Your task to perform on an android device: Search for "macbook pro 13 inch" on newegg.com, select the first entry, and add it to the cart. Image 0: 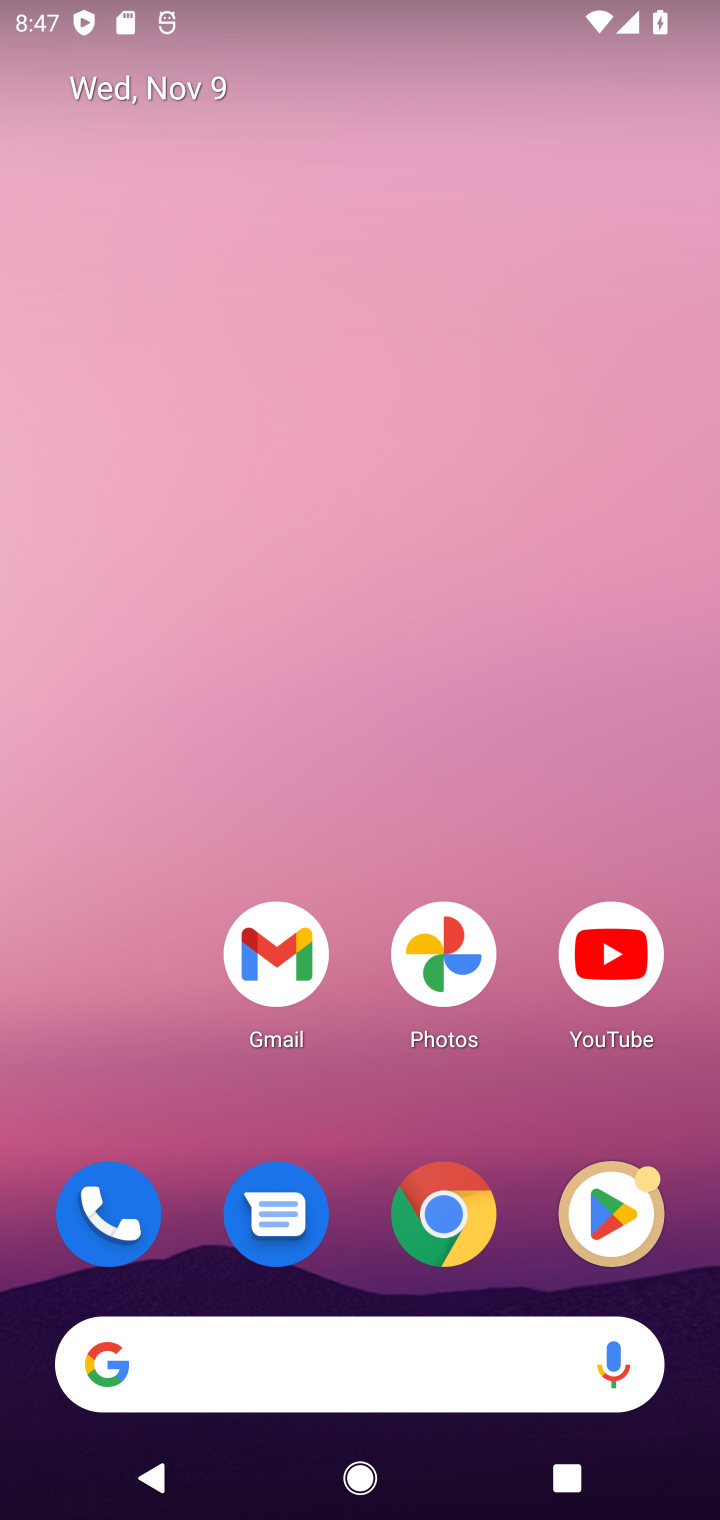
Step 0: drag from (359, 1125) to (341, 26)
Your task to perform on an android device: Search for "macbook pro 13 inch" on newegg.com, select the first entry, and add it to the cart. Image 1: 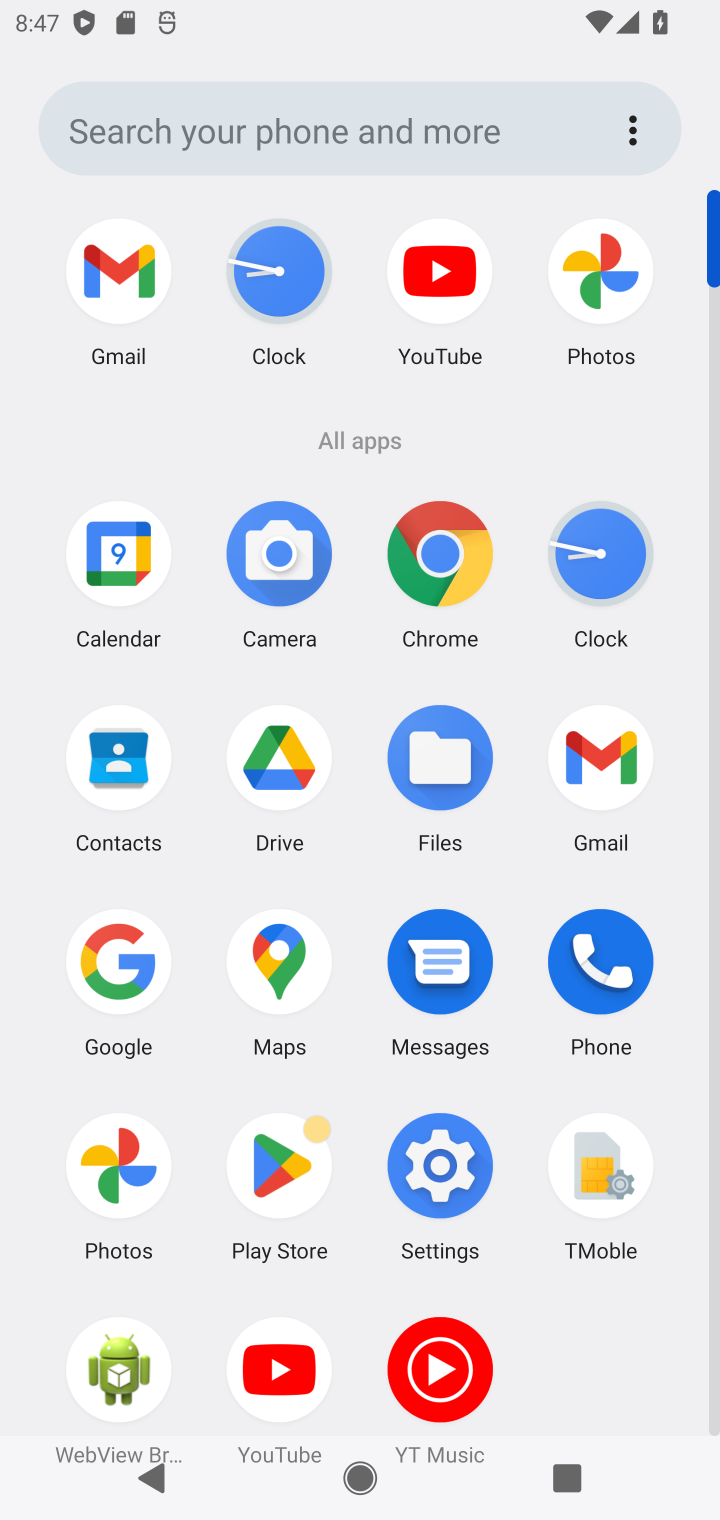
Step 1: click (450, 562)
Your task to perform on an android device: Search for "macbook pro 13 inch" on newegg.com, select the first entry, and add it to the cart. Image 2: 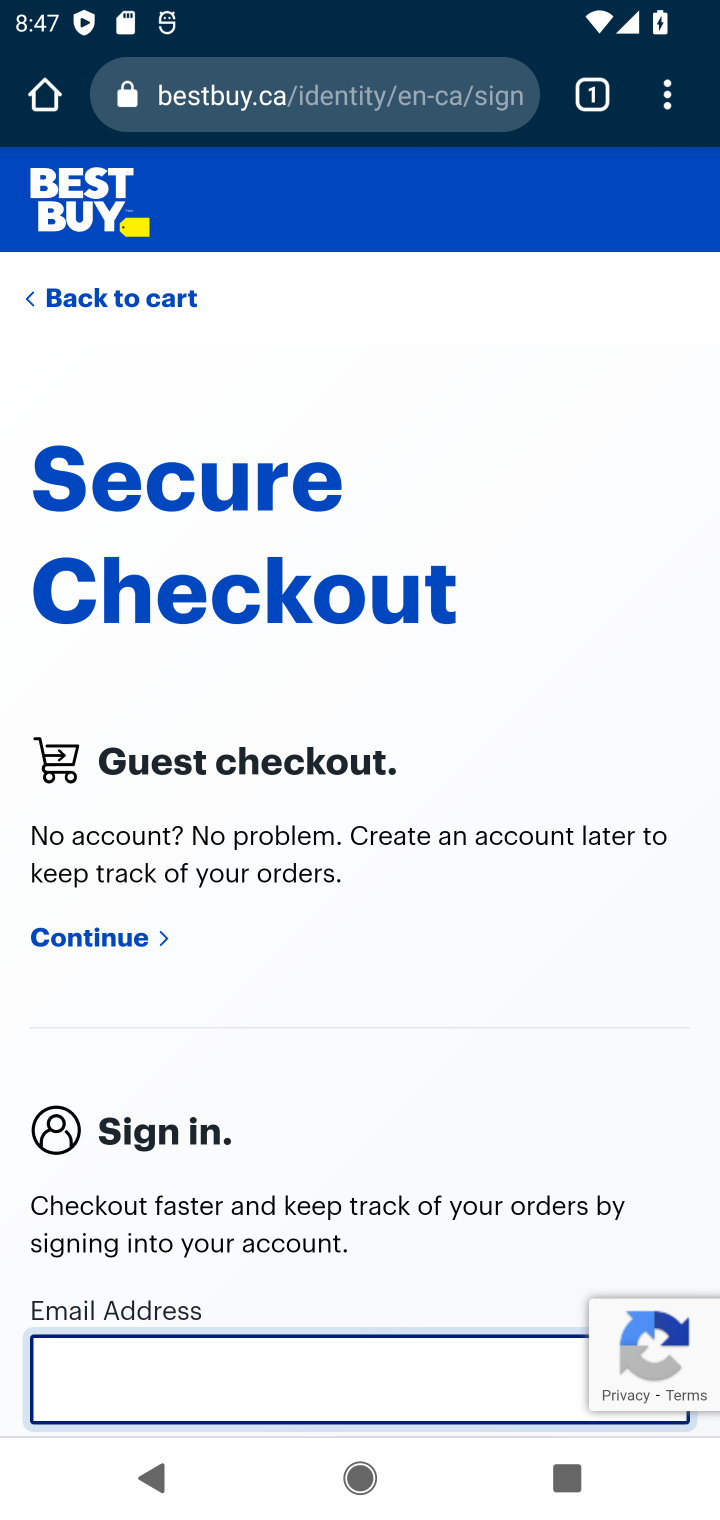
Step 2: click (301, 80)
Your task to perform on an android device: Search for "macbook pro 13 inch" on newegg.com, select the first entry, and add it to the cart. Image 3: 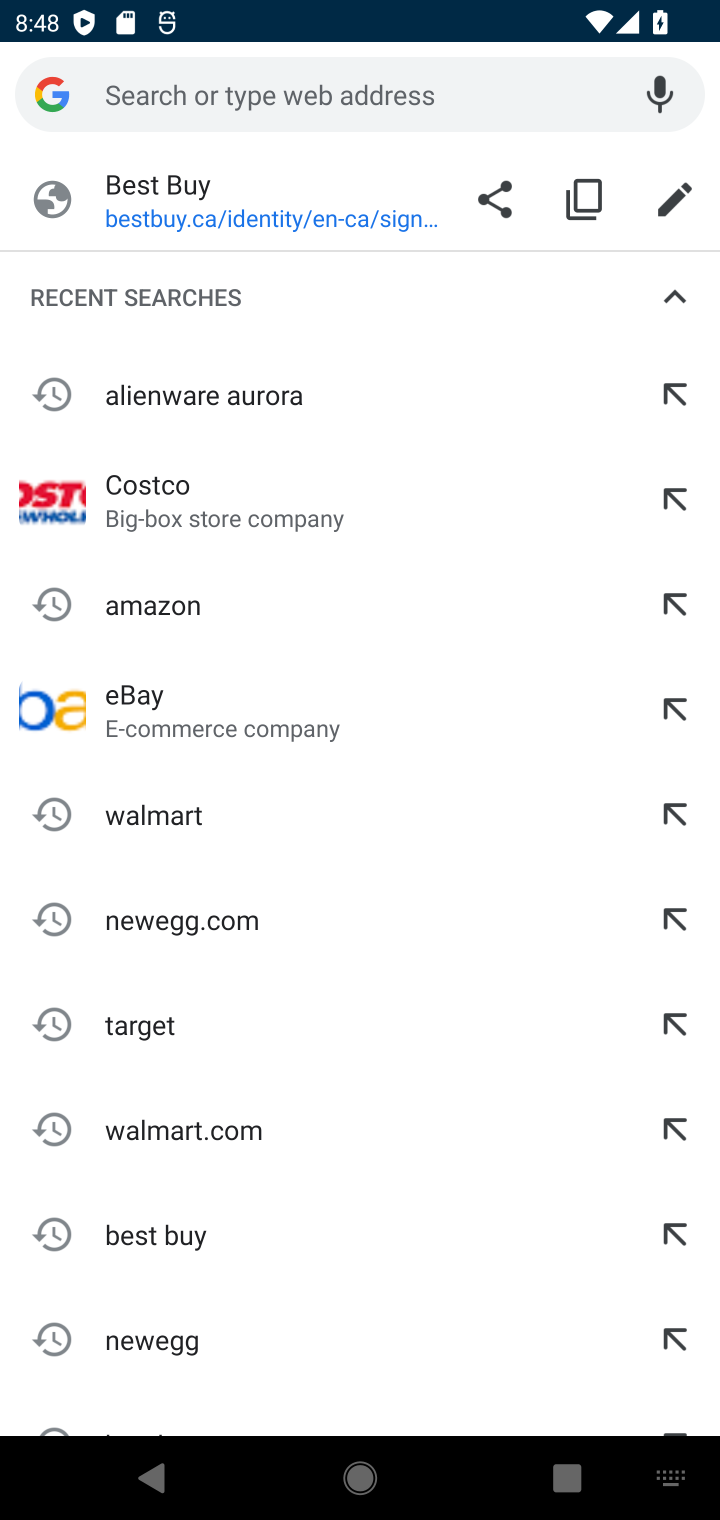
Step 3: type "newegg.com"
Your task to perform on an android device: Search for "macbook pro 13 inch" on newegg.com, select the first entry, and add it to the cart. Image 4: 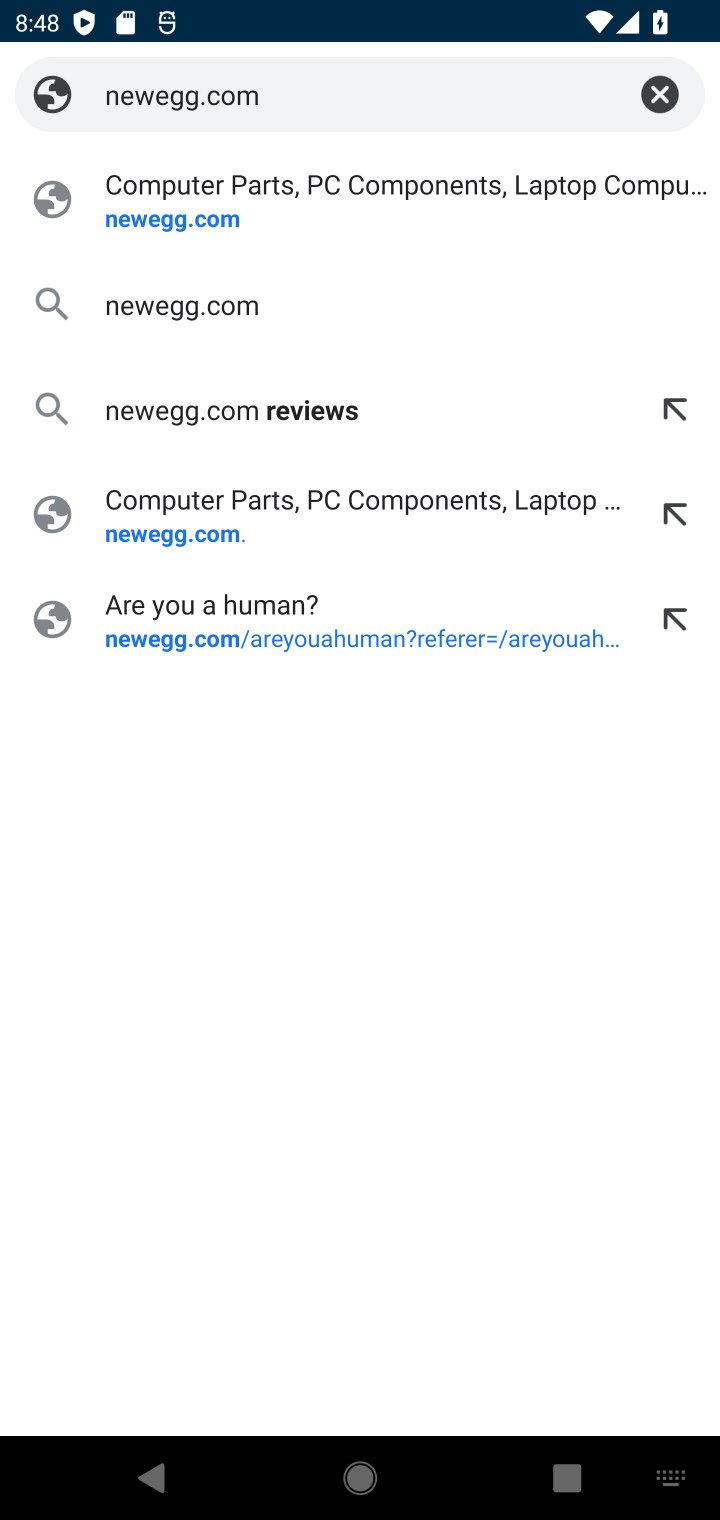
Step 4: press enter
Your task to perform on an android device: Search for "macbook pro 13 inch" on newegg.com, select the first entry, and add it to the cart. Image 5: 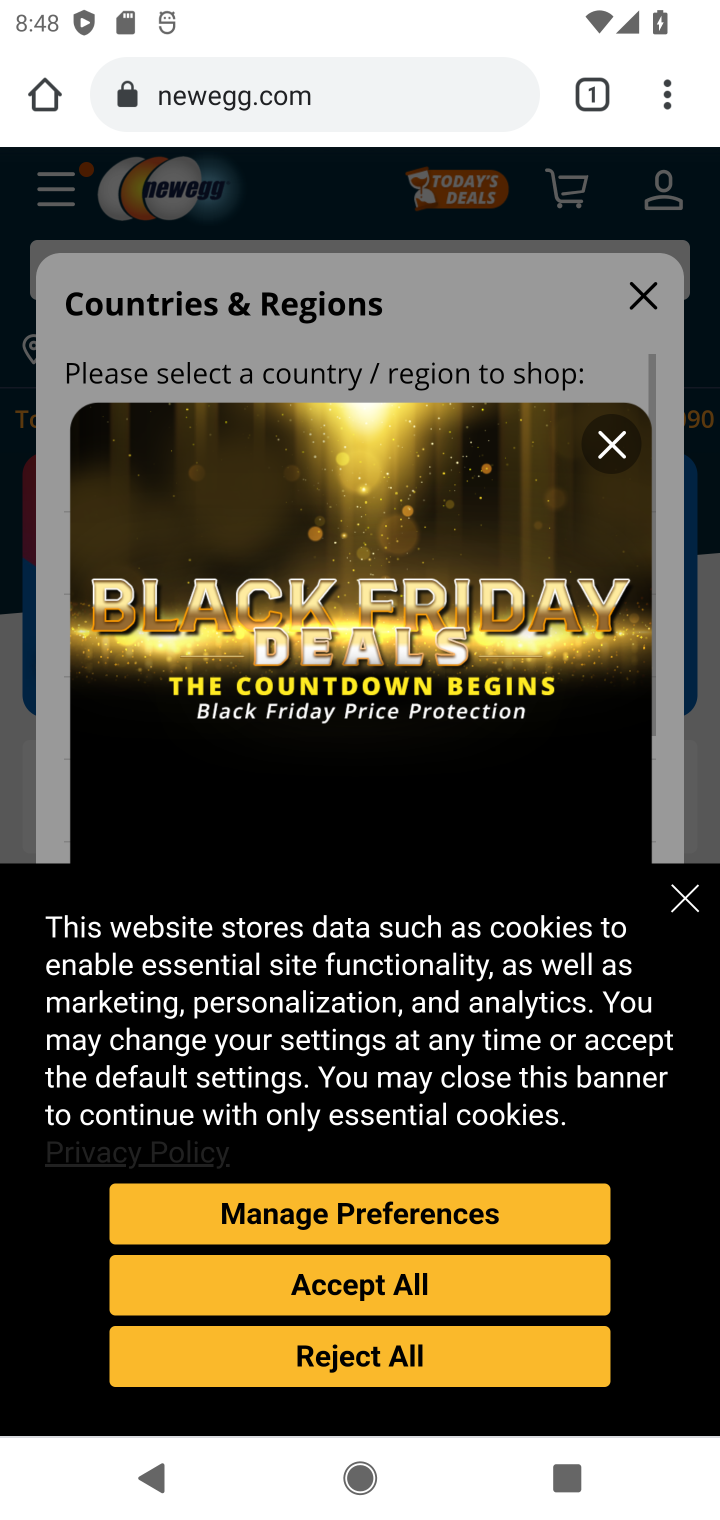
Step 5: click (655, 290)
Your task to perform on an android device: Search for "macbook pro 13 inch" on newegg.com, select the first entry, and add it to the cart. Image 6: 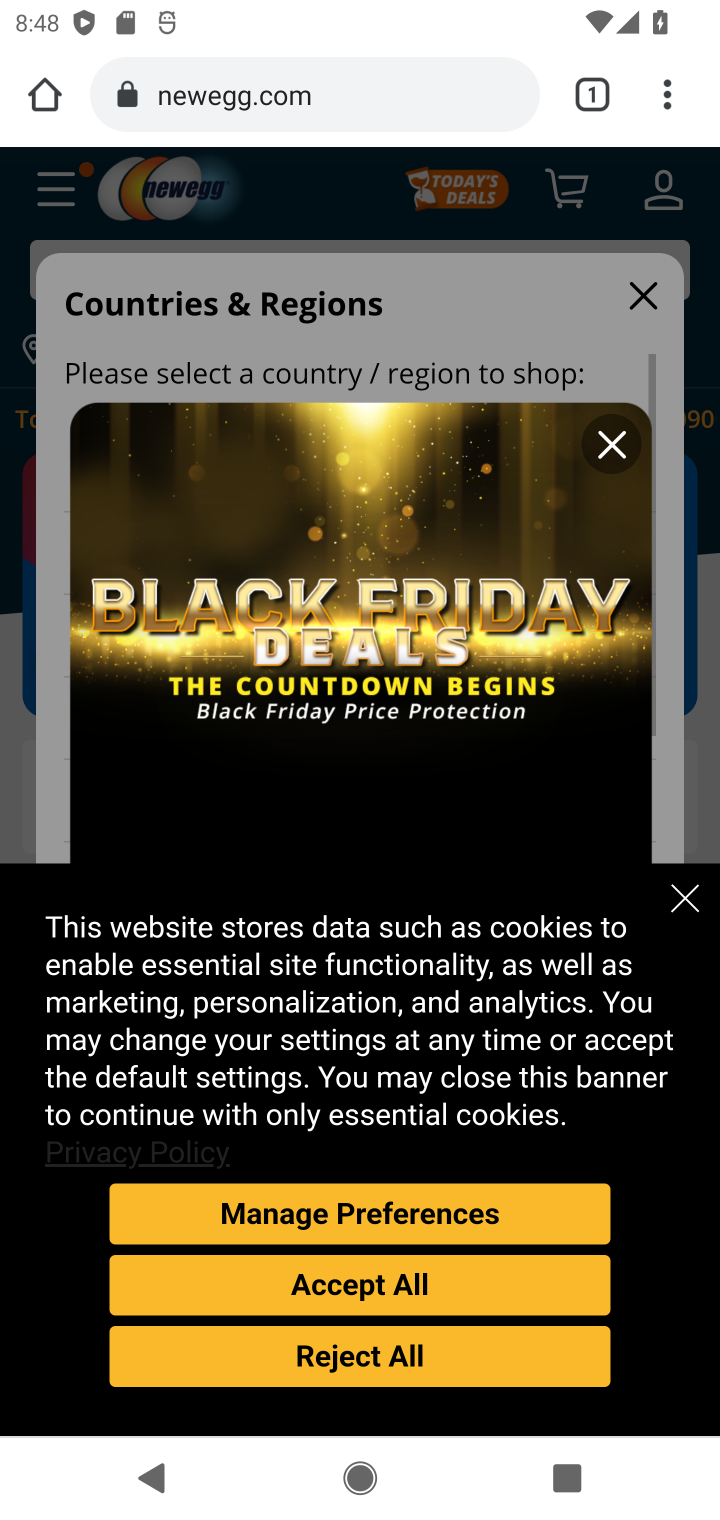
Step 6: click (655, 290)
Your task to perform on an android device: Search for "macbook pro 13 inch" on newegg.com, select the first entry, and add it to the cart. Image 7: 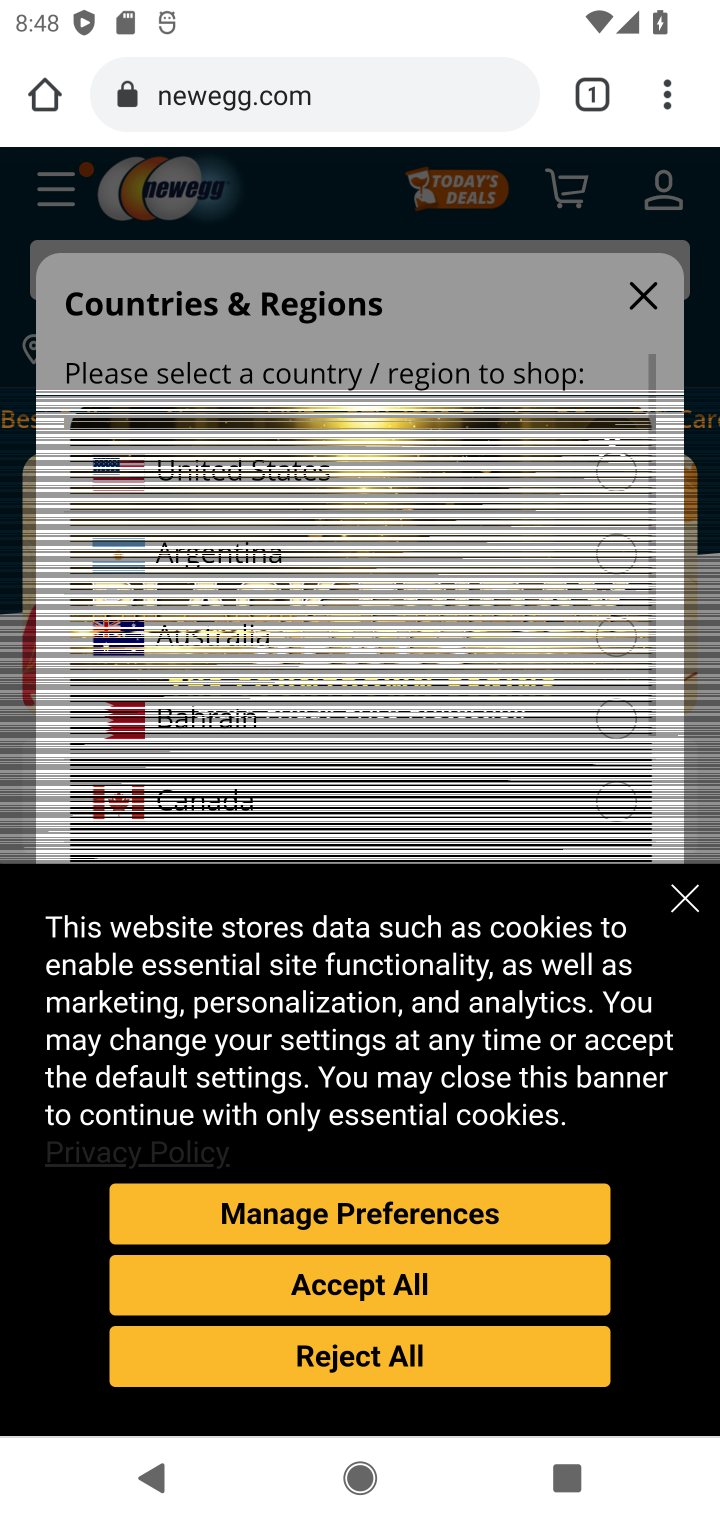
Step 7: click (613, 455)
Your task to perform on an android device: Search for "macbook pro 13 inch" on newegg.com, select the first entry, and add it to the cart. Image 8: 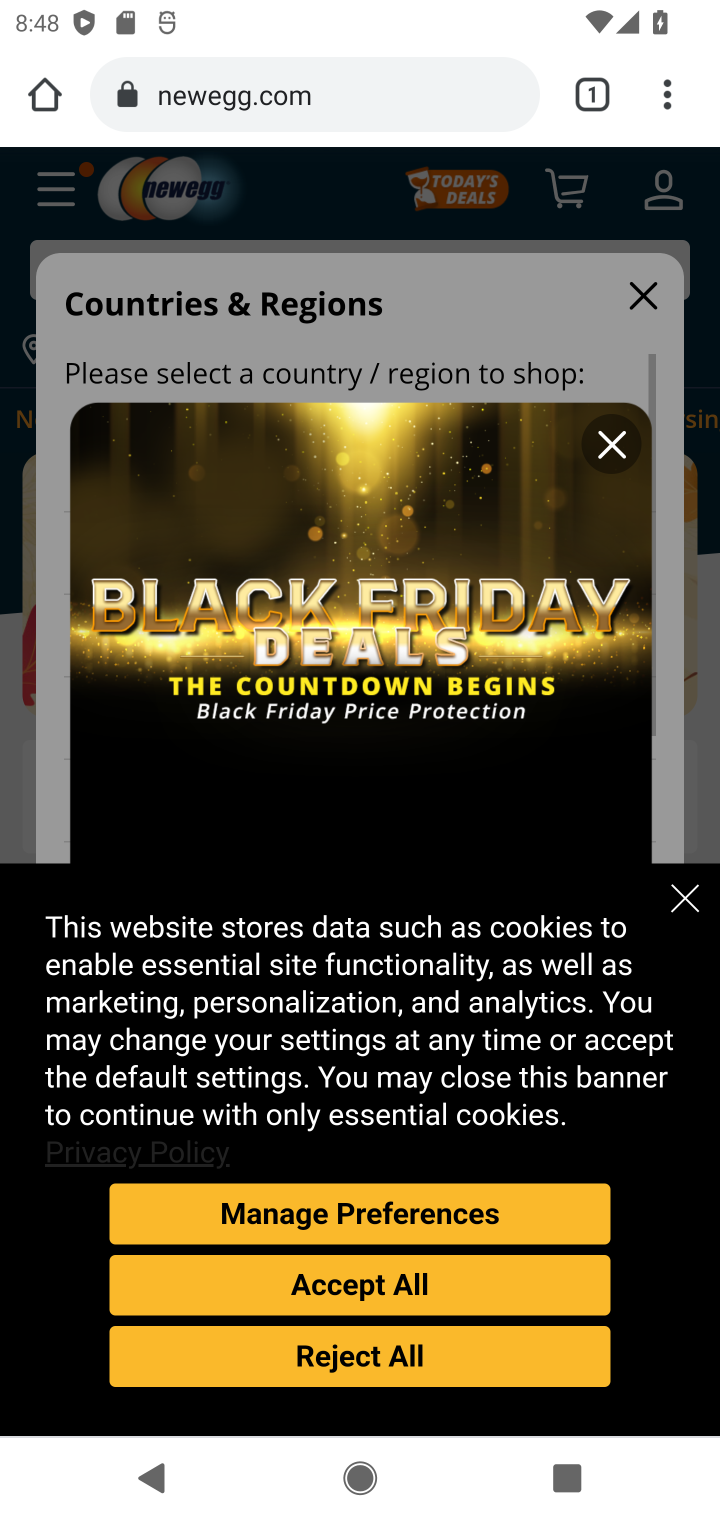
Step 8: click (640, 312)
Your task to perform on an android device: Search for "macbook pro 13 inch" on newegg.com, select the first entry, and add it to the cart. Image 9: 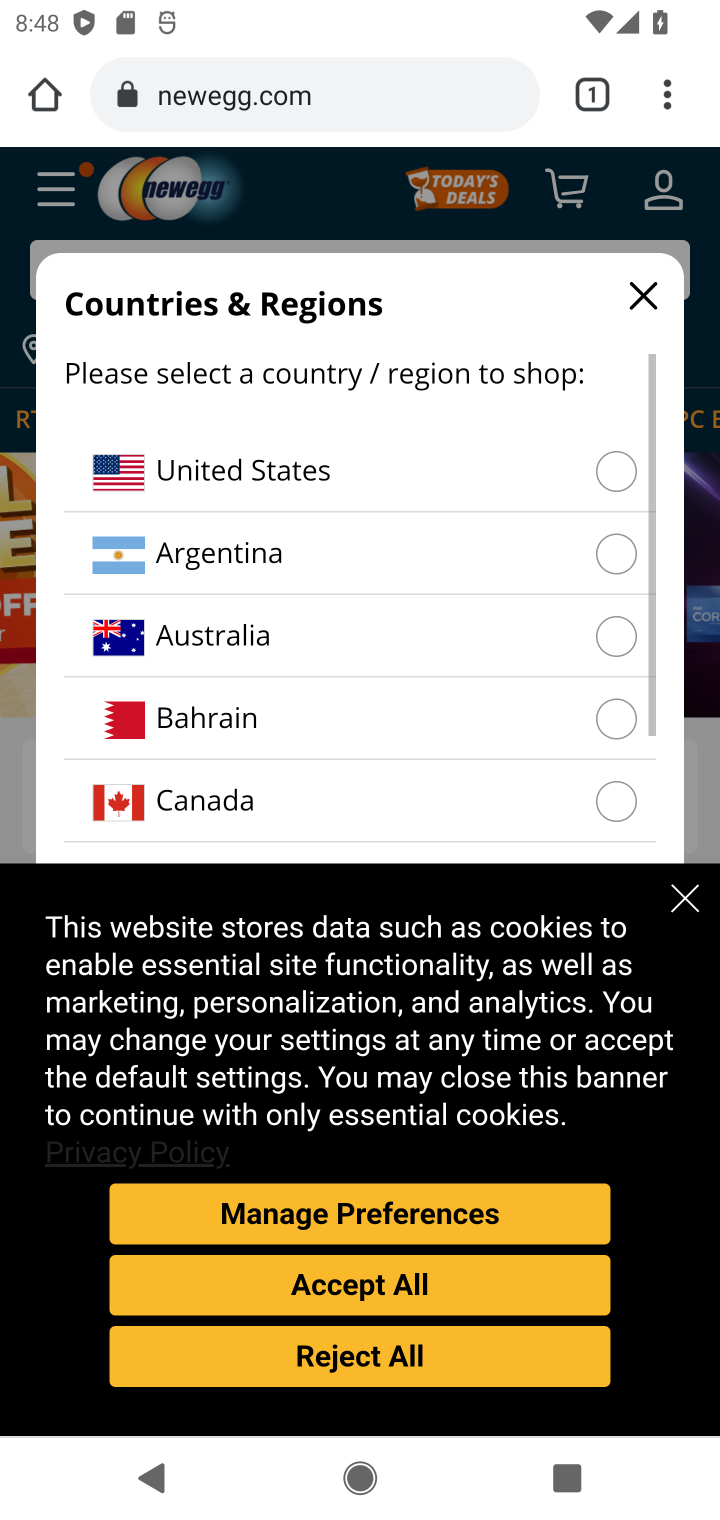
Step 9: click (647, 289)
Your task to perform on an android device: Search for "macbook pro 13 inch" on newegg.com, select the first entry, and add it to the cart. Image 10: 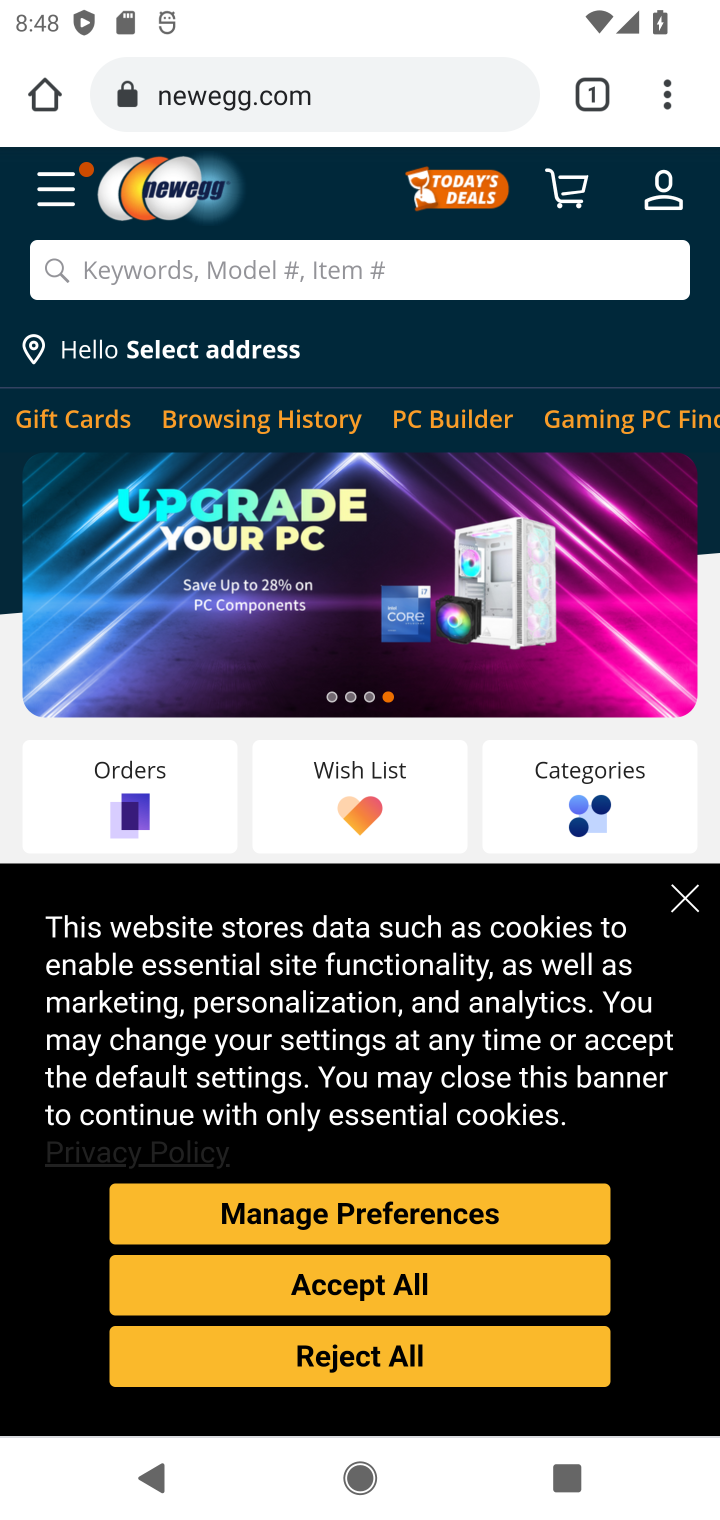
Step 10: click (532, 269)
Your task to perform on an android device: Search for "macbook pro 13 inch" on newegg.com, select the first entry, and add it to the cart. Image 11: 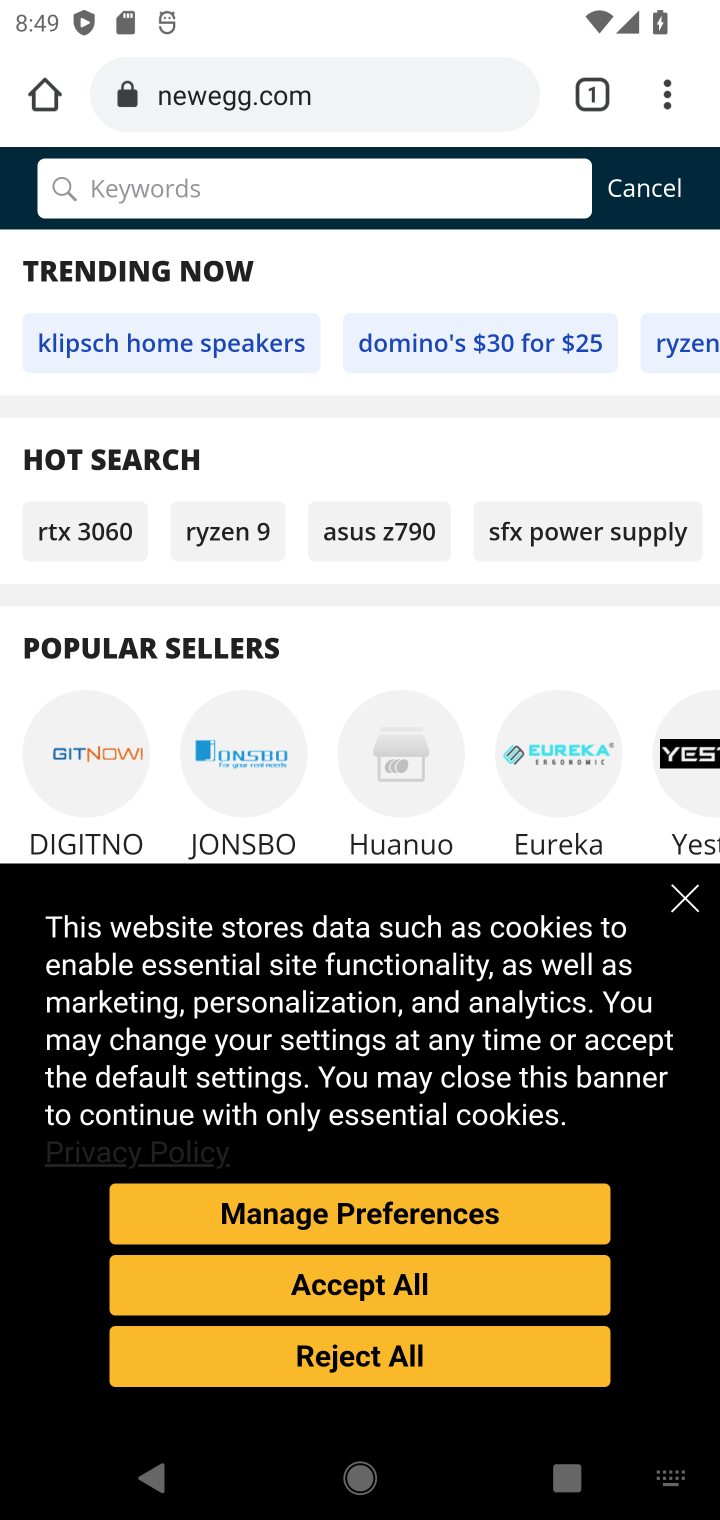
Step 11: type "macbook pro 13 inch"
Your task to perform on an android device: Search for "macbook pro 13 inch" on newegg.com, select the first entry, and add it to the cart. Image 12: 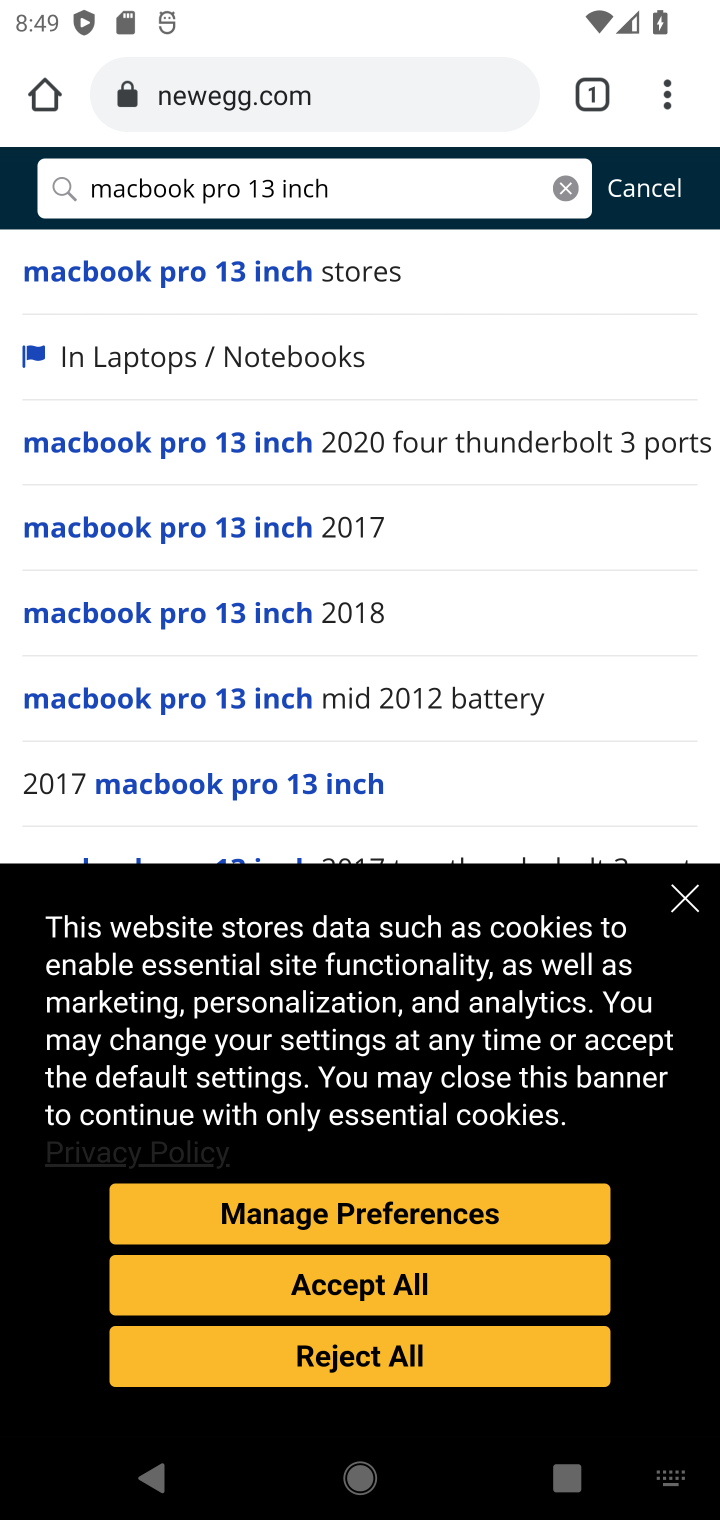
Step 12: press enter
Your task to perform on an android device: Search for "macbook pro 13 inch" on newegg.com, select the first entry, and add it to the cart. Image 13: 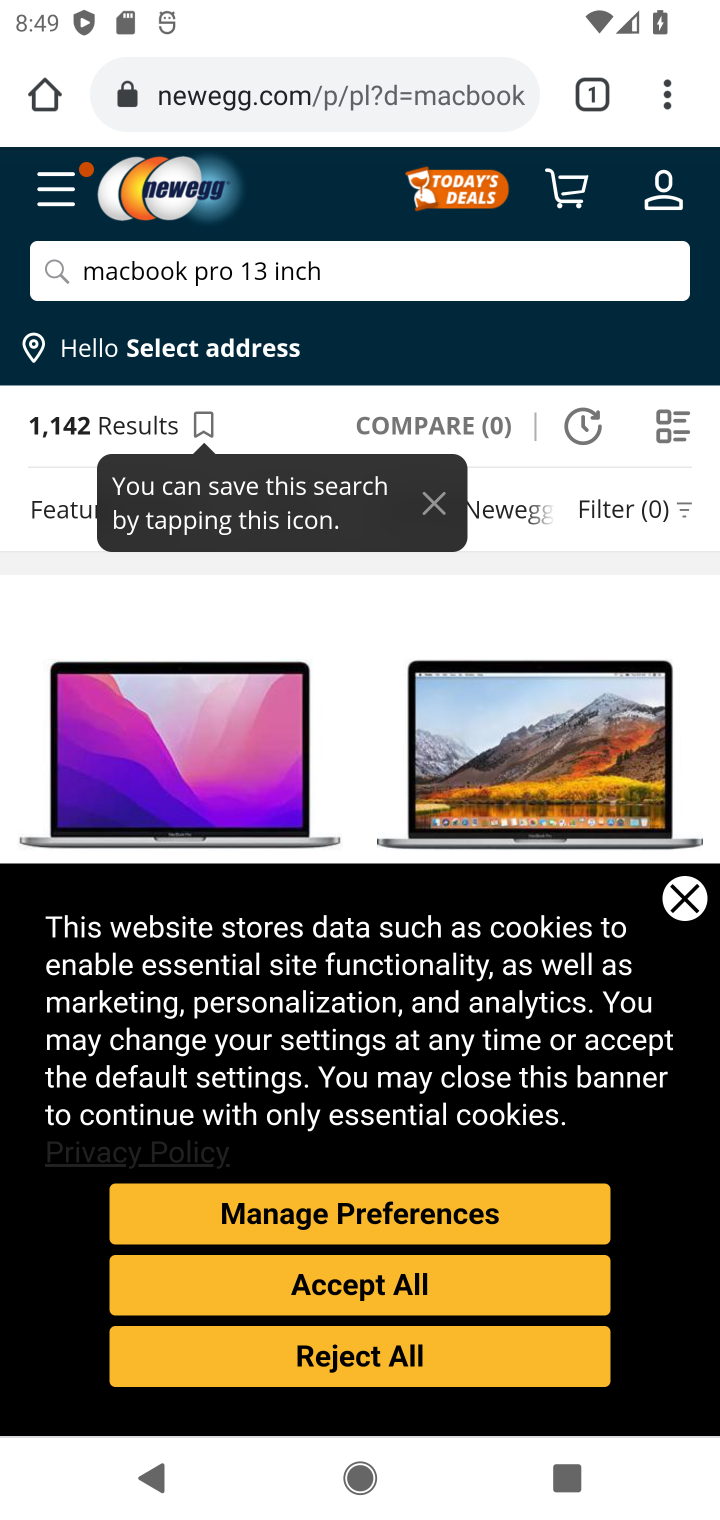
Step 13: click (397, 1296)
Your task to perform on an android device: Search for "macbook pro 13 inch" on newegg.com, select the first entry, and add it to the cart. Image 14: 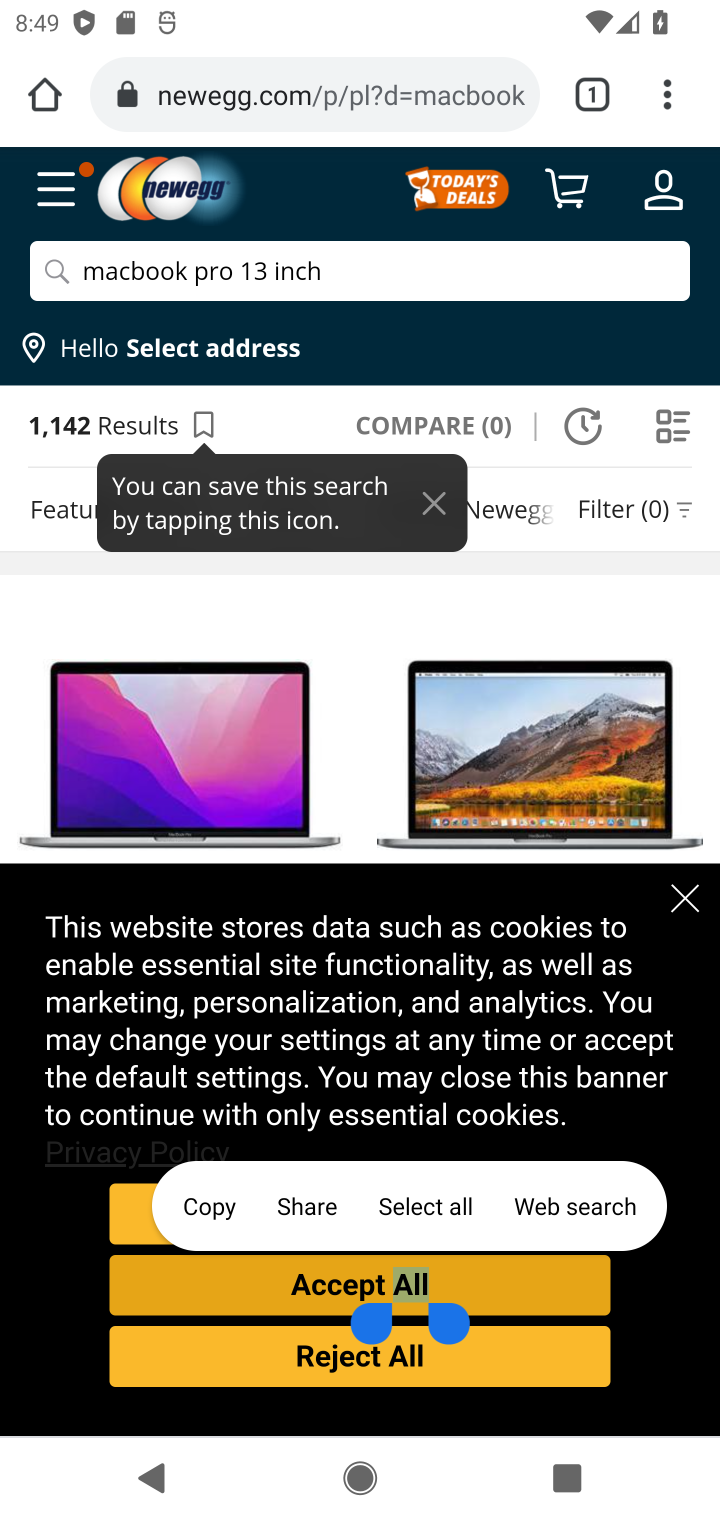
Step 14: click (349, 1311)
Your task to perform on an android device: Search for "macbook pro 13 inch" on newegg.com, select the first entry, and add it to the cart. Image 15: 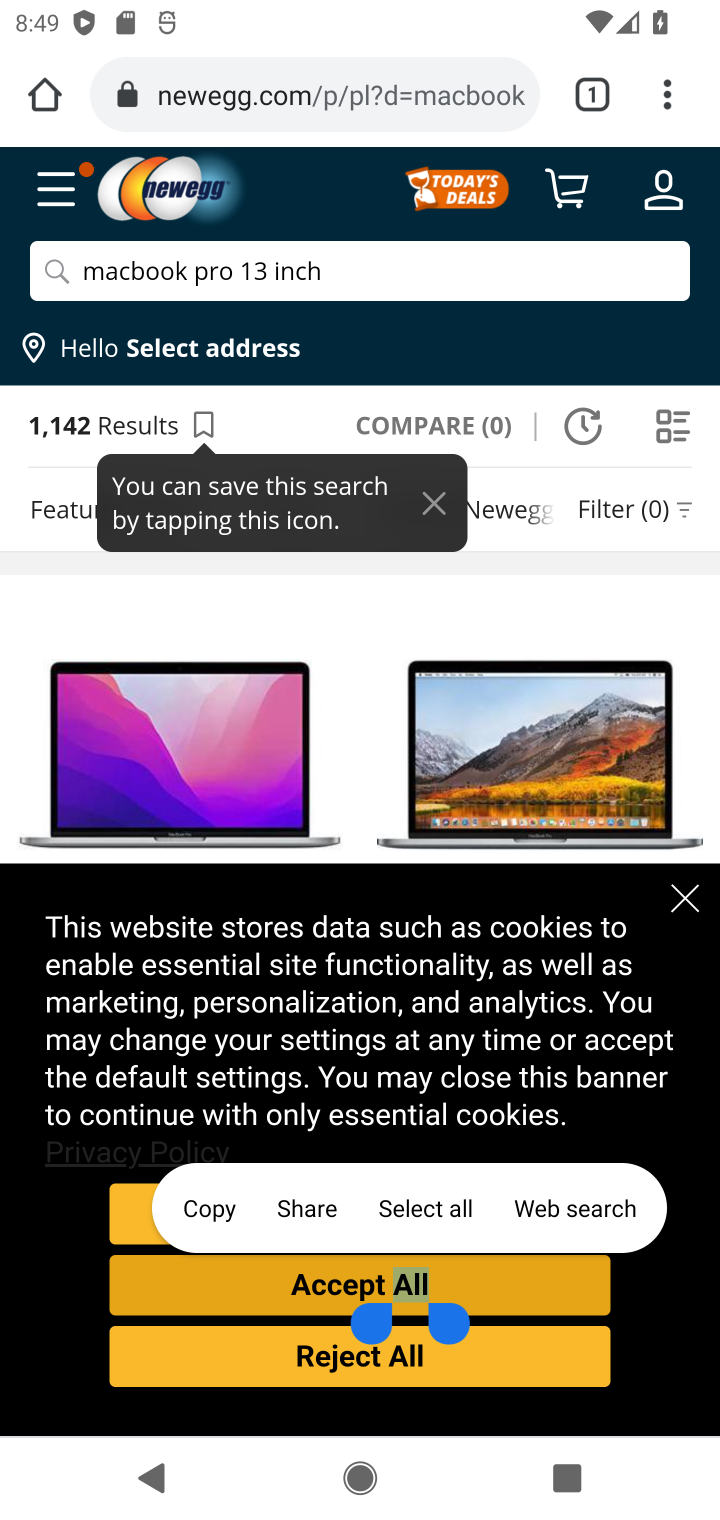
Step 15: click (359, 1290)
Your task to perform on an android device: Search for "macbook pro 13 inch" on newegg.com, select the first entry, and add it to the cart. Image 16: 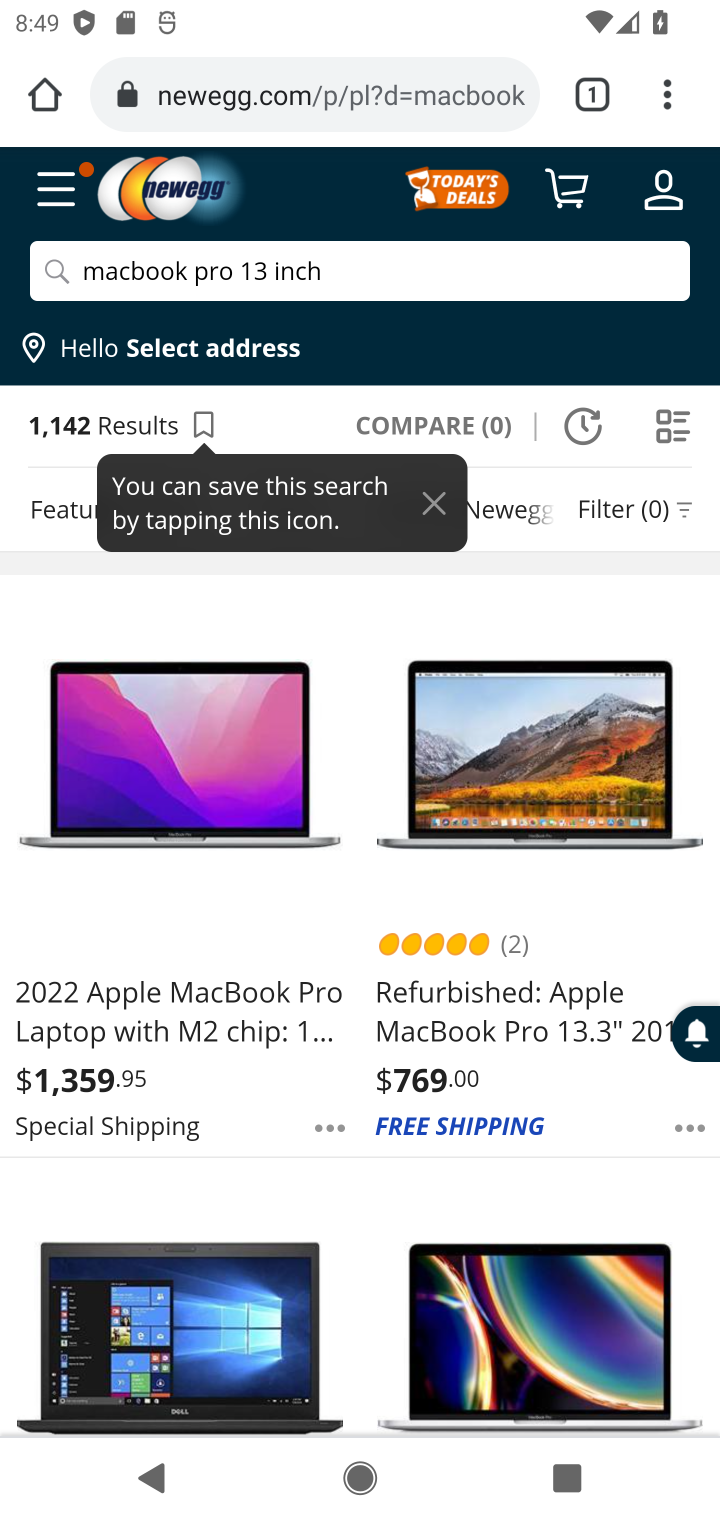
Step 16: drag from (286, 1262) to (292, 936)
Your task to perform on an android device: Search for "macbook pro 13 inch" on newegg.com, select the first entry, and add it to the cart. Image 17: 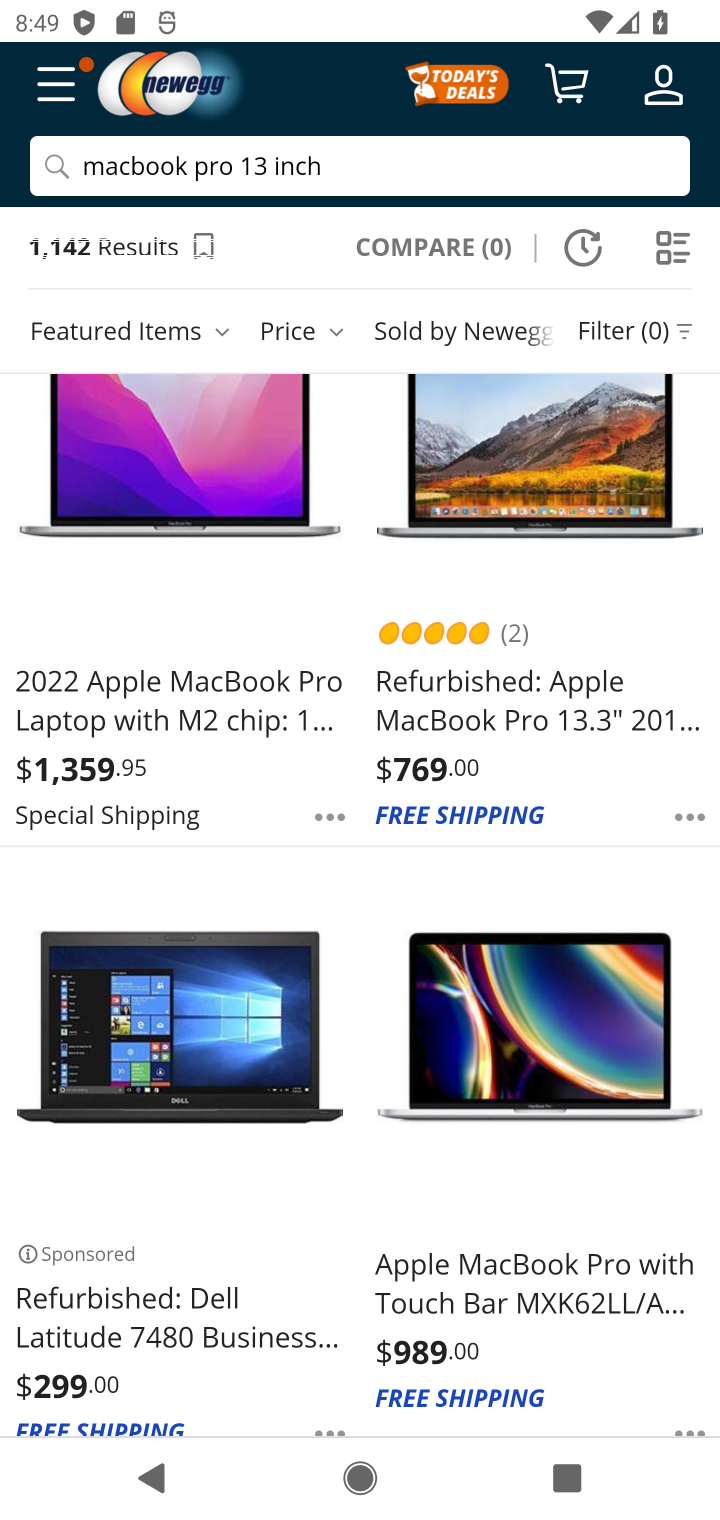
Step 17: drag from (260, 780) to (366, 1162)
Your task to perform on an android device: Search for "macbook pro 13 inch" on newegg.com, select the first entry, and add it to the cart. Image 18: 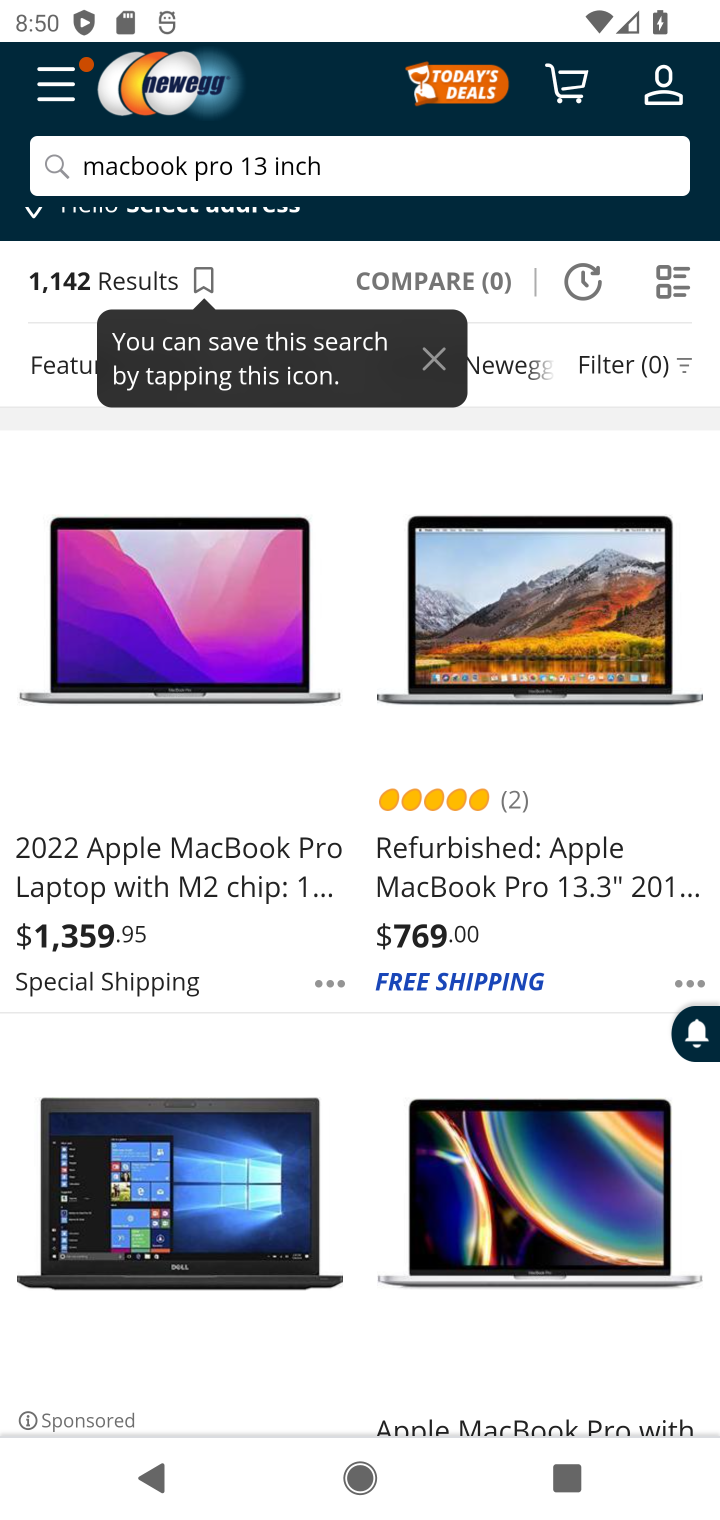
Step 18: click (239, 887)
Your task to perform on an android device: Search for "macbook pro 13 inch" on newegg.com, select the first entry, and add it to the cart. Image 19: 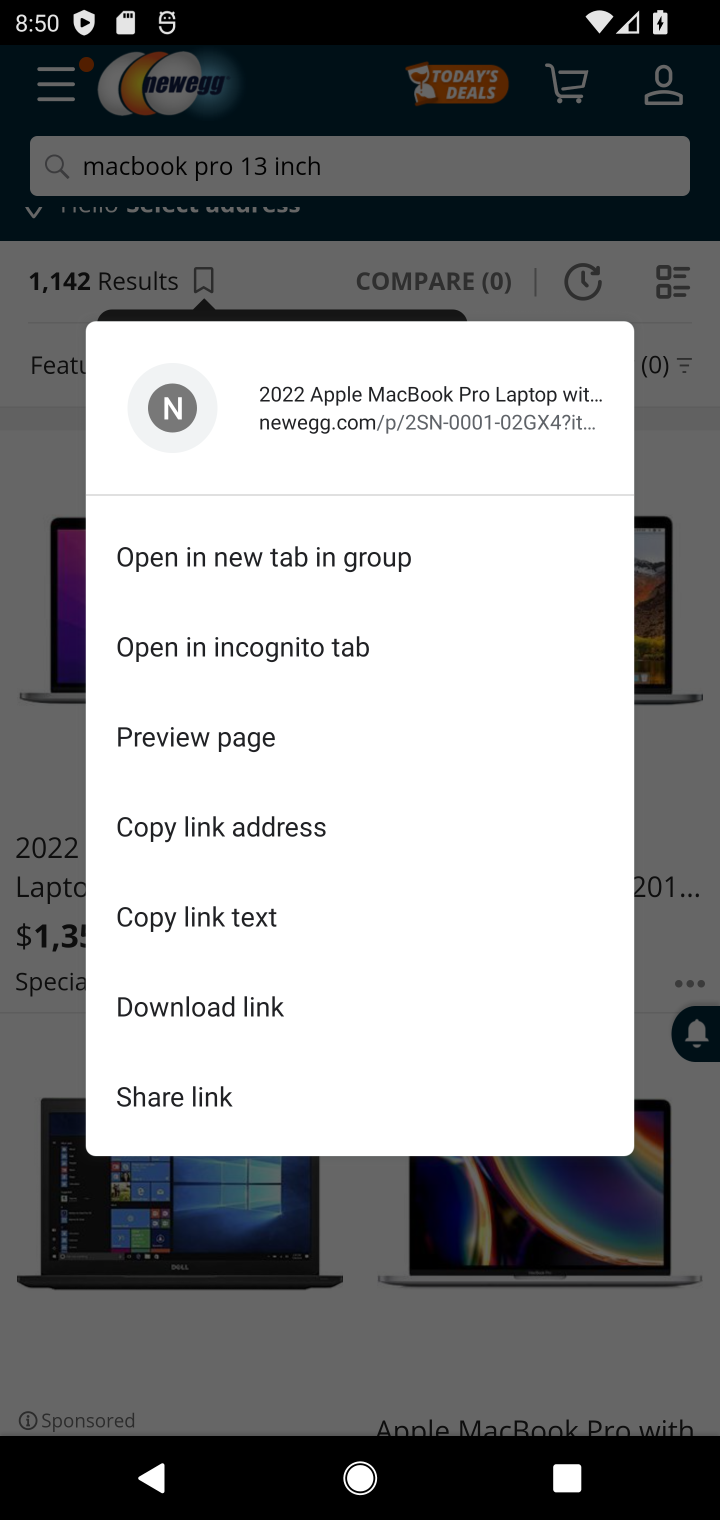
Step 19: click (31, 861)
Your task to perform on an android device: Search for "macbook pro 13 inch" on newegg.com, select the first entry, and add it to the cart. Image 20: 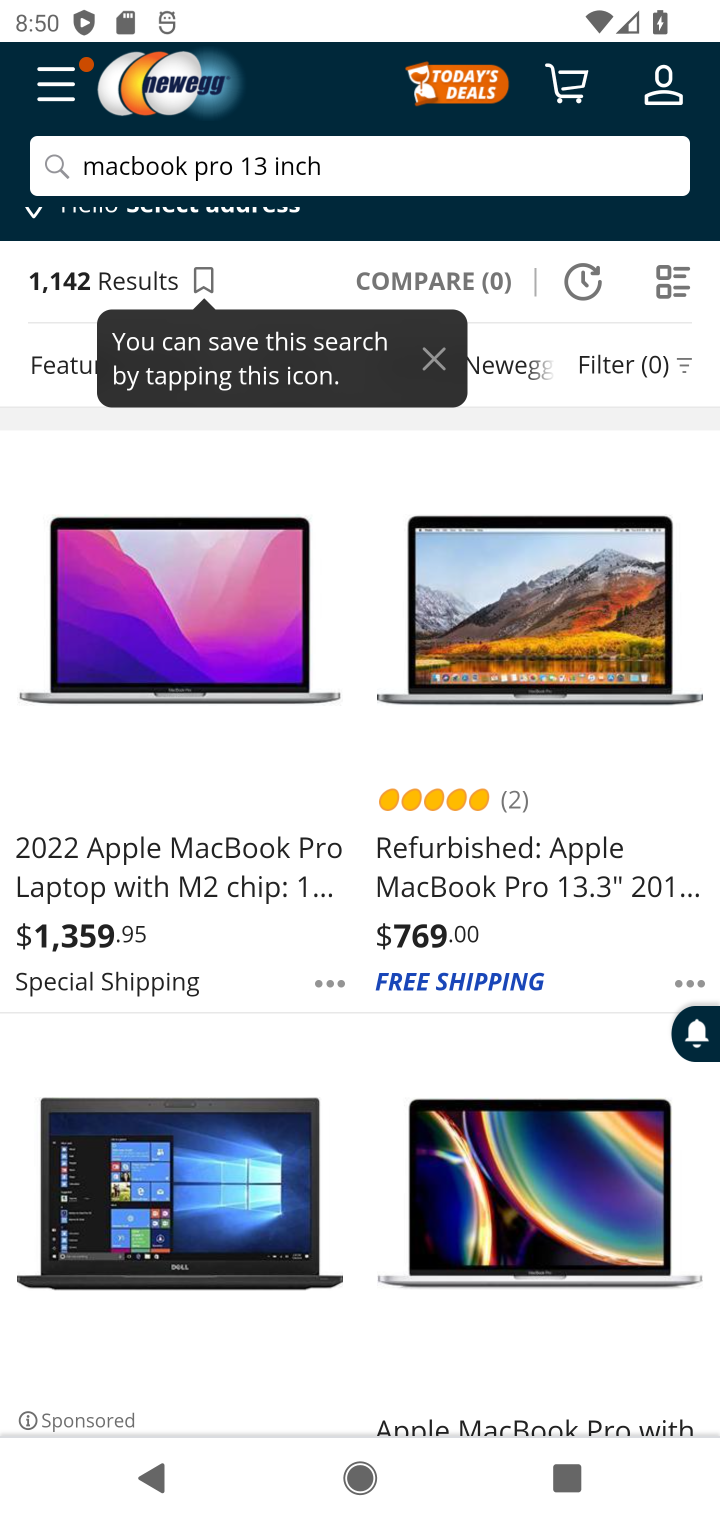
Step 20: click (146, 901)
Your task to perform on an android device: Search for "macbook pro 13 inch" on newegg.com, select the first entry, and add it to the cart. Image 21: 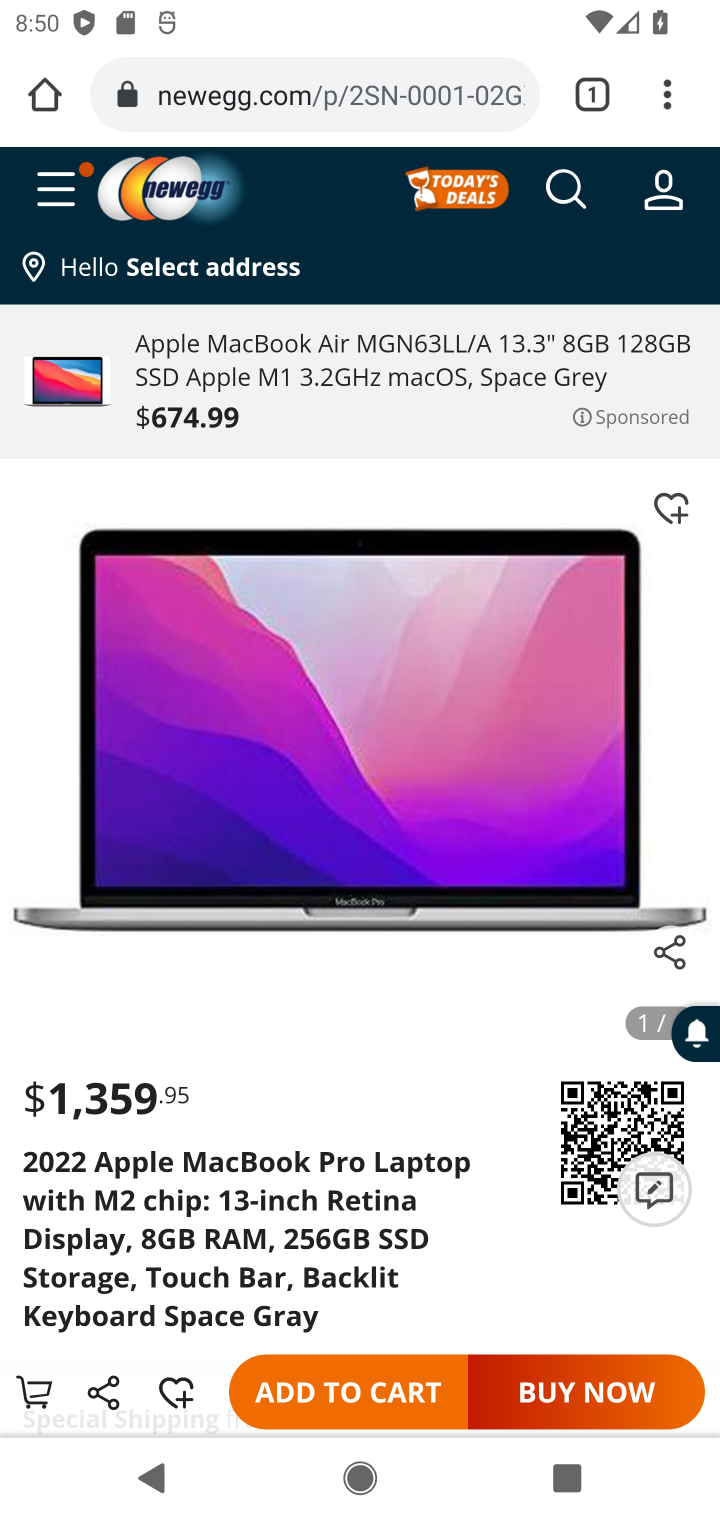
Step 21: click (334, 1390)
Your task to perform on an android device: Search for "macbook pro 13 inch" on newegg.com, select the first entry, and add it to the cart. Image 22: 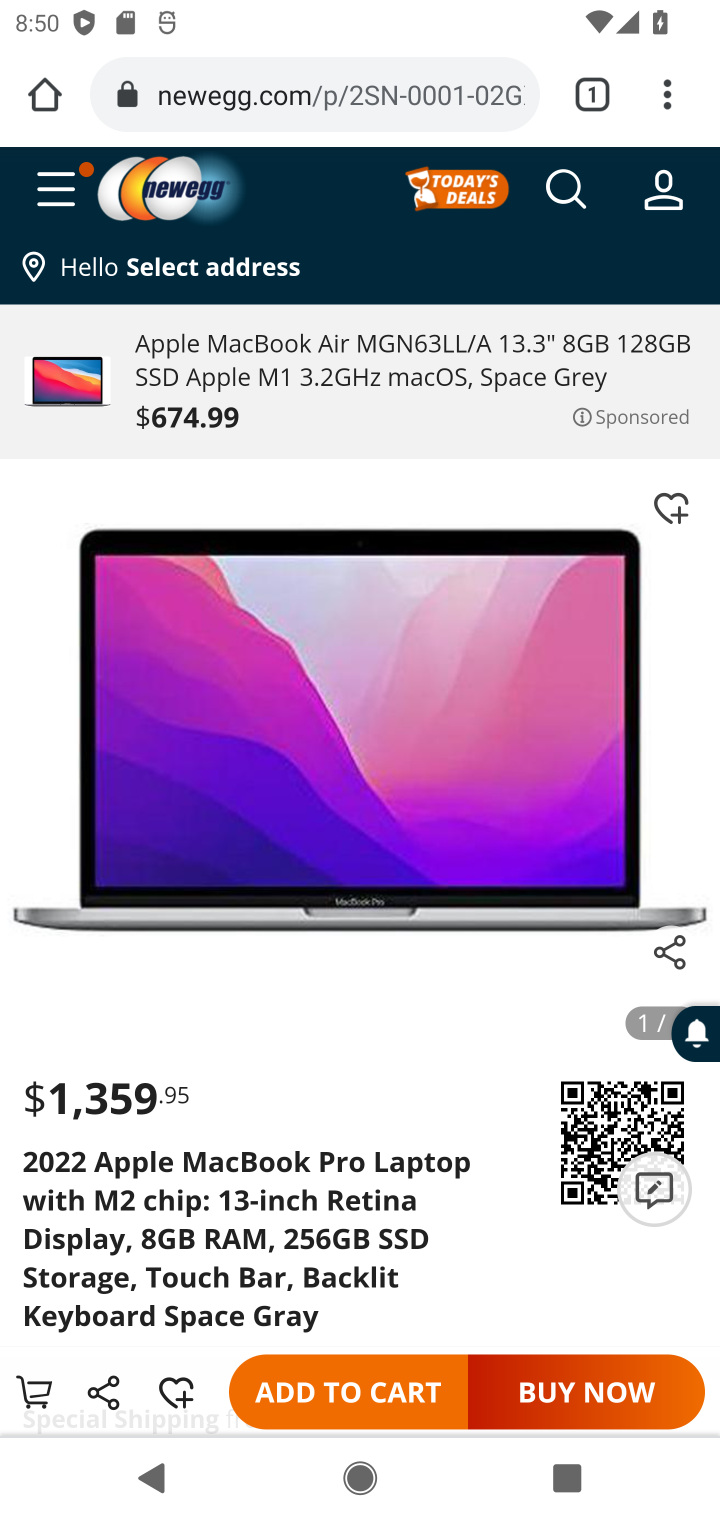
Step 22: click (342, 1401)
Your task to perform on an android device: Search for "macbook pro 13 inch" on newegg.com, select the first entry, and add it to the cart. Image 23: 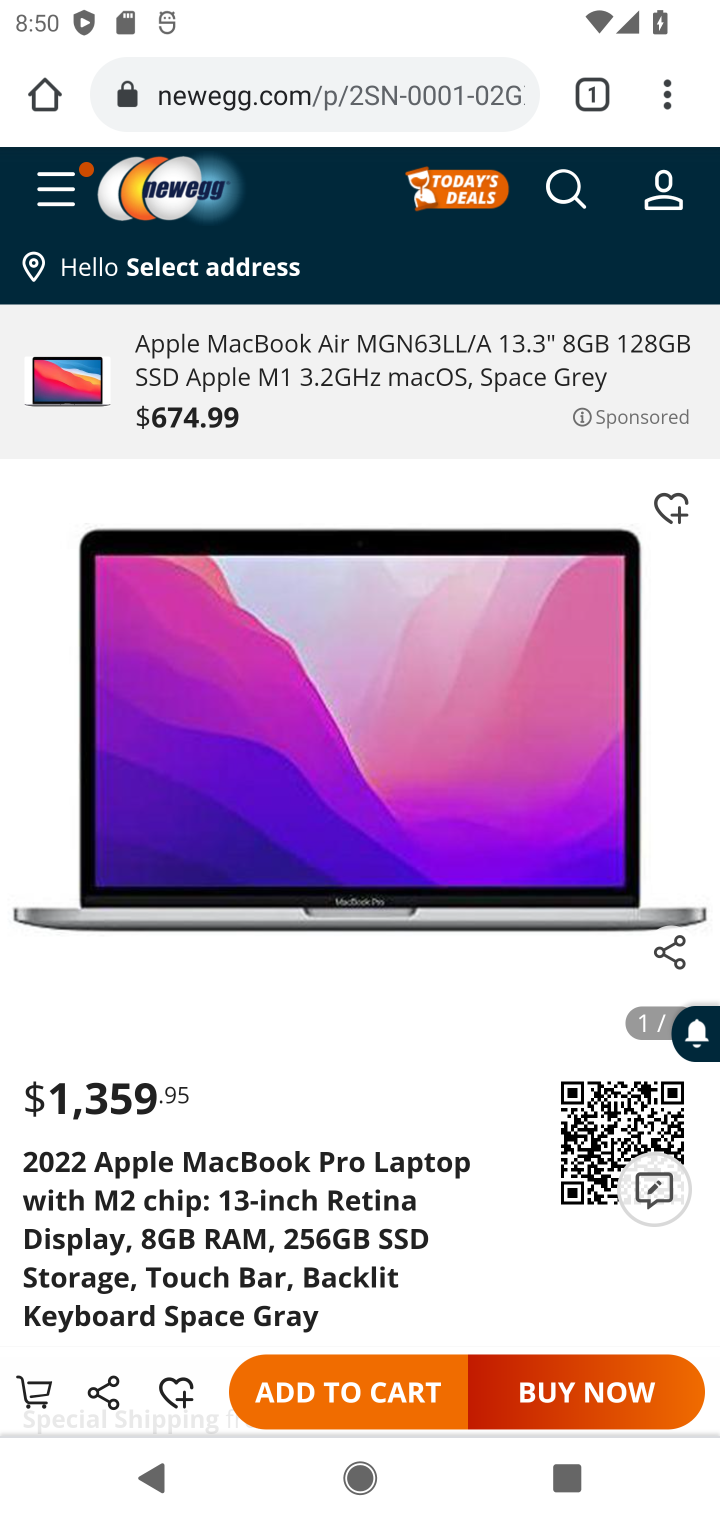
Step 23: click (349, 1388)
Your task to perform on an android device: Search for "macbook pro 13 inch" on newegg.com, select the first entry, and add it to the cart. Image 24: 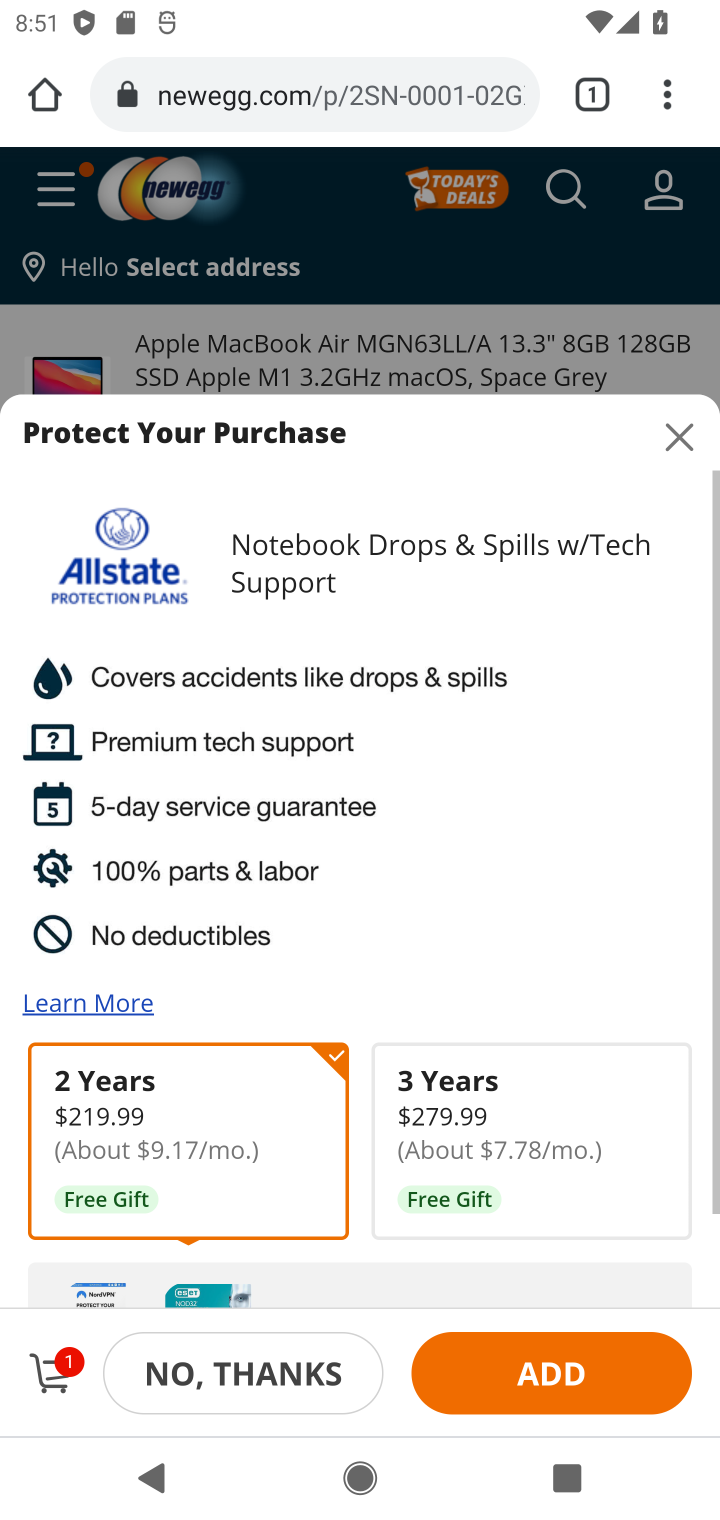
Step 24: task complete